Your task to perform on an android device: Open maps Image 0: 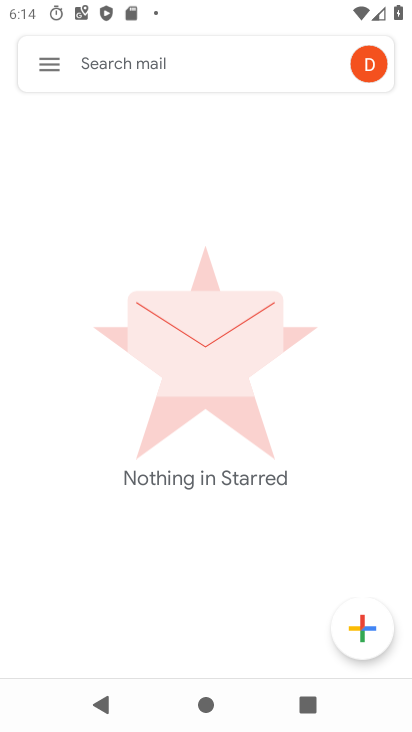
Step 0: press home button
Your task to perform on an android device: Open maps Image 1: 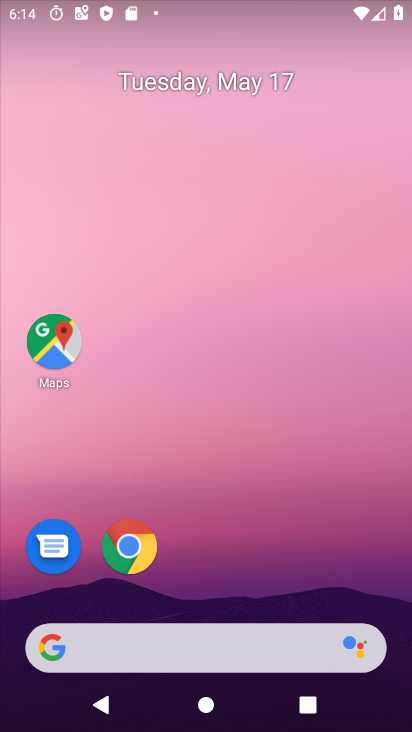
Step 1: click (36, 334)
Your task to perform on an android device: Open maps Image 2: 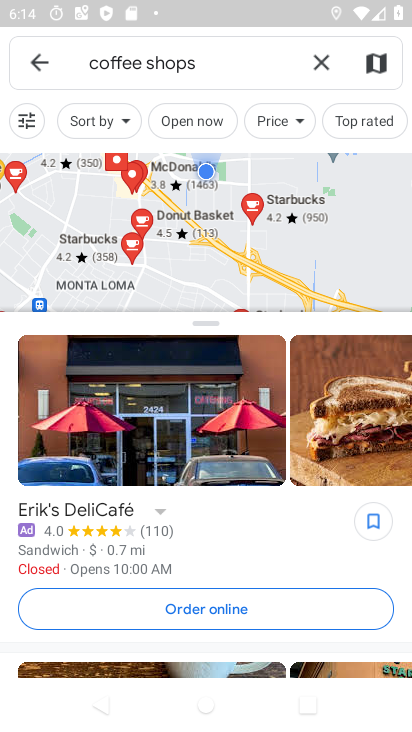
Step 2: task complete